Your task to perform on an android device: Show me recent news Image 0: 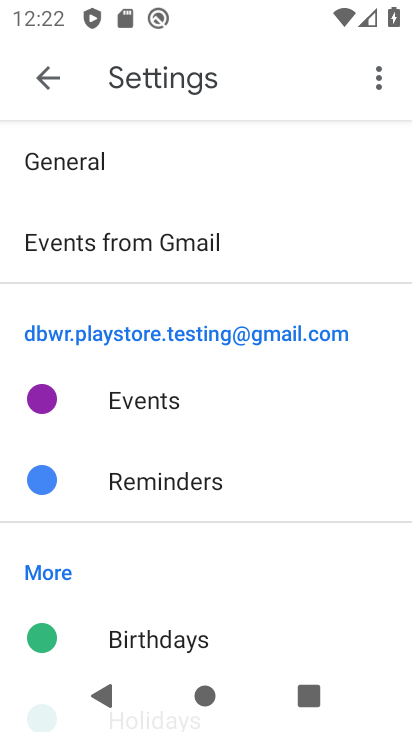
Step 0: press home button
Your task to perform on an android device: Show me recent news Image 1: 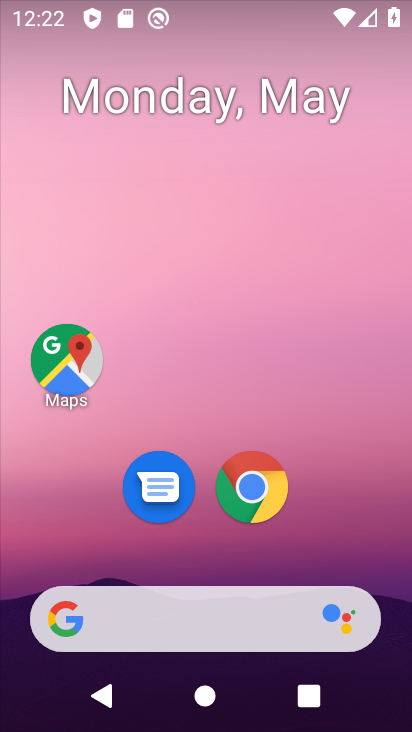
Step 1: task complete